Your task to perform on an android device: Is it going to rain tomorrow? Image 0: 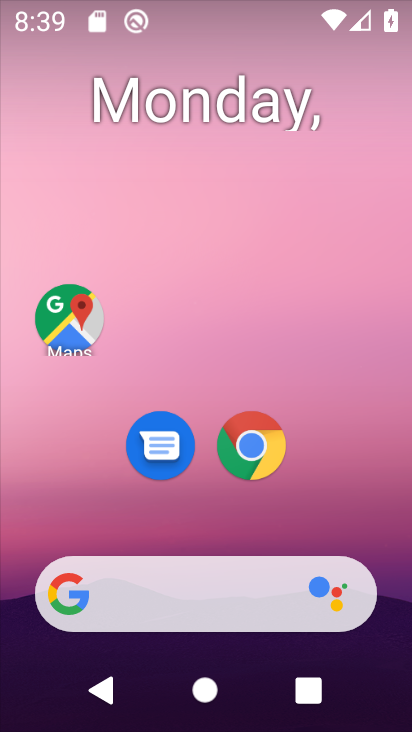
Step 0: drag from (358, 511) to (355, 116)
Your task to perform on an android device: Is it going to rain tomorrow? Image 1: 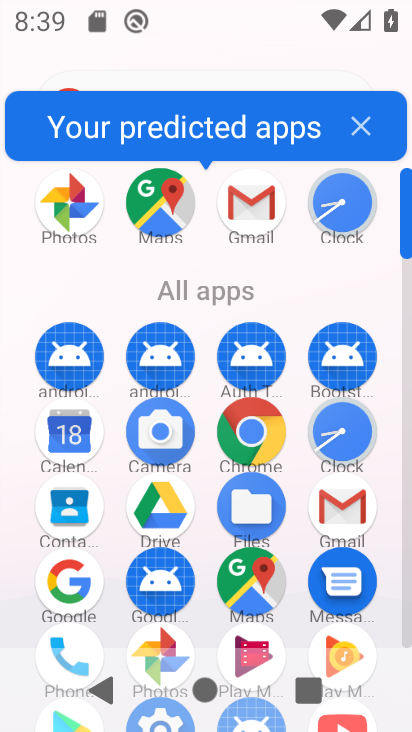
Step 1: click (268, 446)
Your task to perform on an android device: Is it going to rain tomorrow? Image 2: 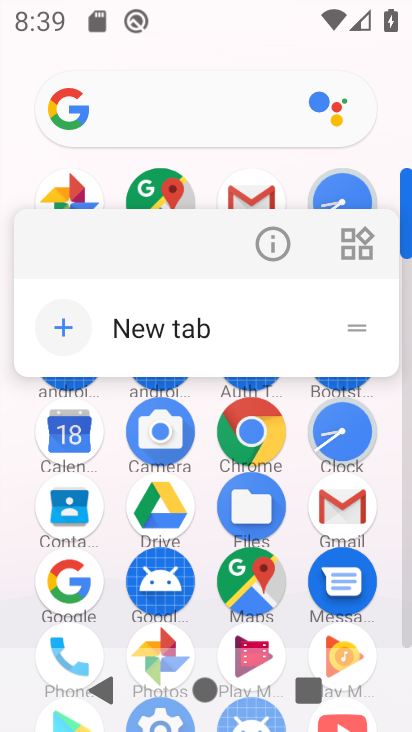
Step 2: click (268, 443)
Your task to perform on an android device: Is it going to rain tomorrow? Image 3: 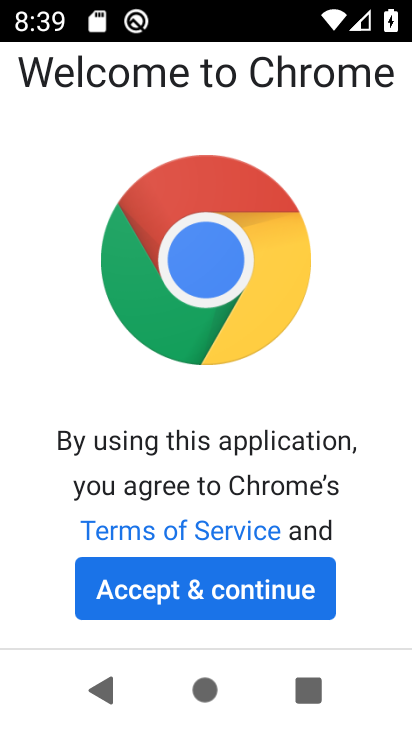
Step 3: click (263, 596)
Your task to perform on an android device: Is it going to rain tomorrow? Image 4: 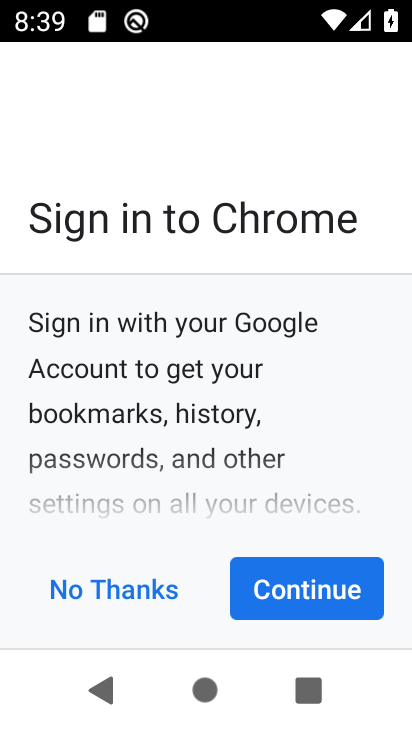
Step 4: click (264, 594)
Your task to perform on an android device: Is it going to rain tomorrow? Image 5: 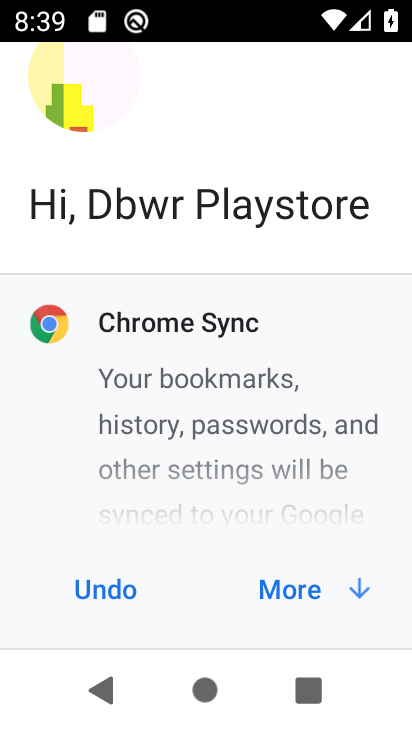
Step 5: click (272, 591)
Your task to perform on an android device: Is it going to rain tomorrow? Image 6: 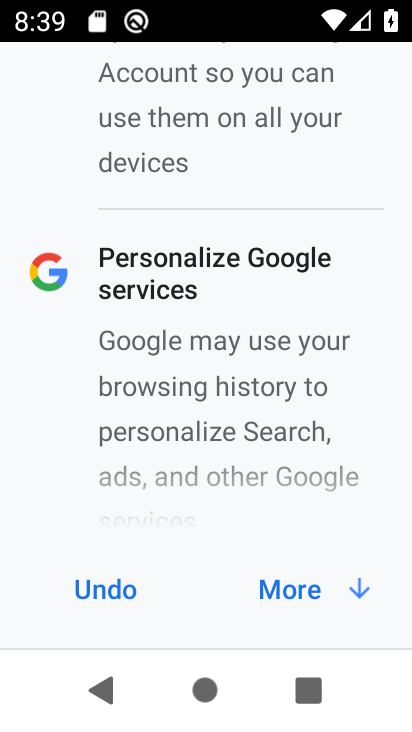
Step 6: click (289, 587)
Your task to perform on an android device: Is it going to rain tomorrow? Image 7: 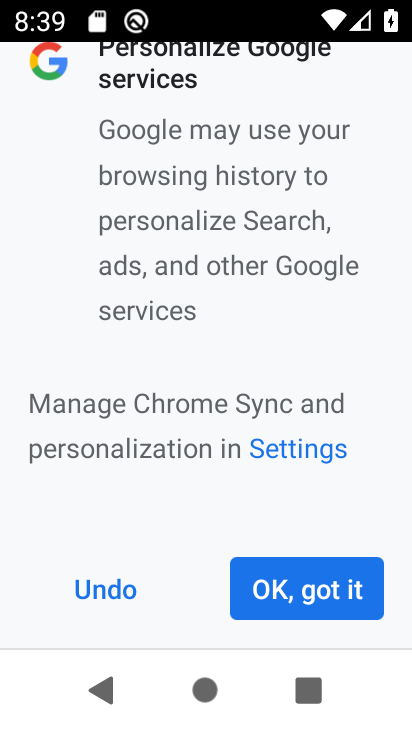
Step 7: click (289, 585)
Your task to perform on an android device: Is it going to rain tomorrow? Image 8: 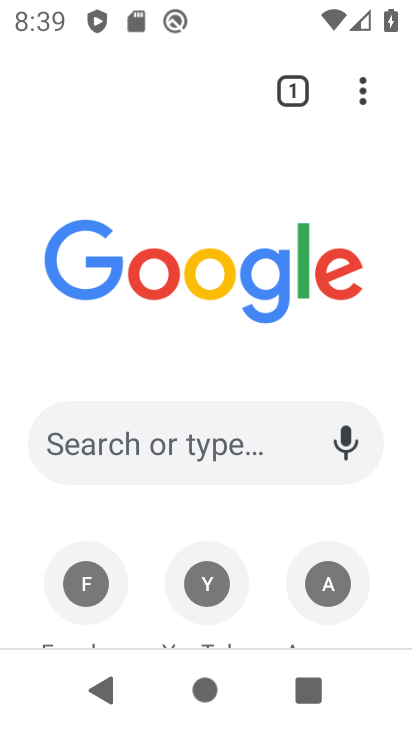
Step 8: click (225, 437)
Your task to perform on an android device: Is it going to rain tomorrow? Image 9: 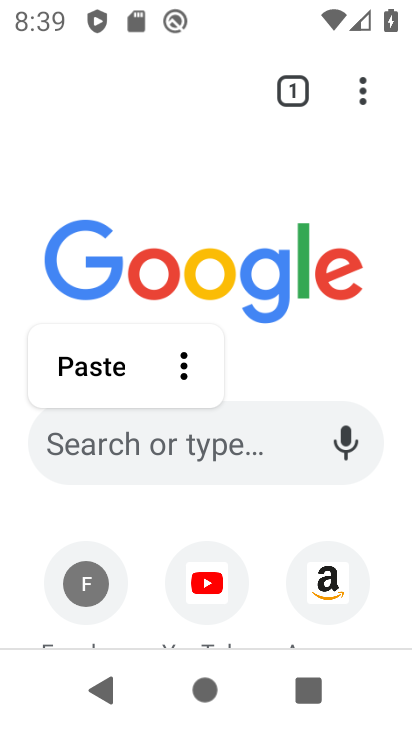
Step 9: type "WHEATHER"
Your task to perform on an android device: Is it going to rain tomorrow? Image 10: 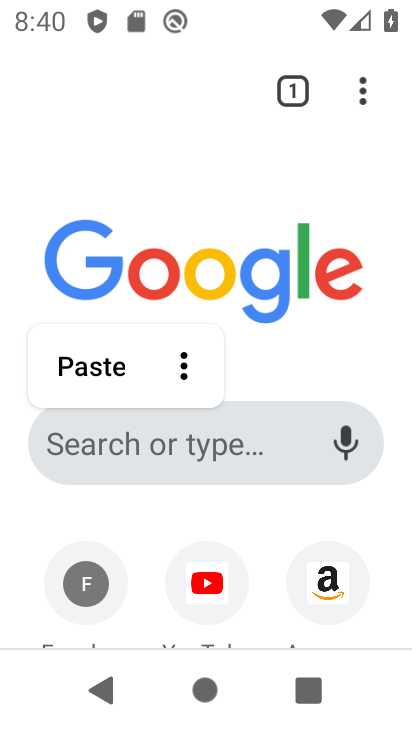
Step 10: click (272, 456)
Your task to perform on an android device: Is it going to rain tomorrow? Image 11: 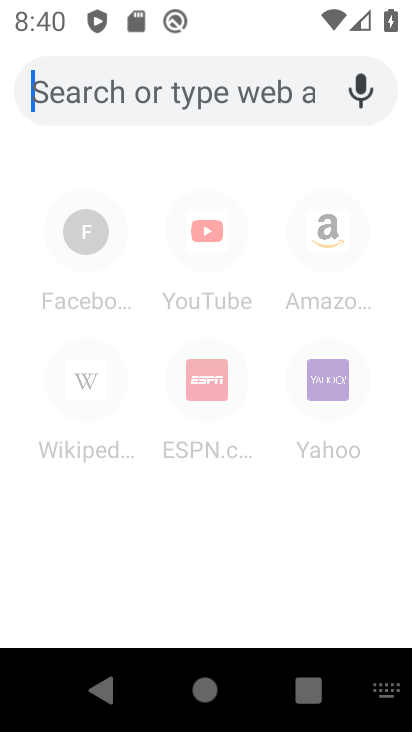
Step 11: type "wheather"
Your task to perform on an android device: Is it going to rain tomorrow? Image 12: 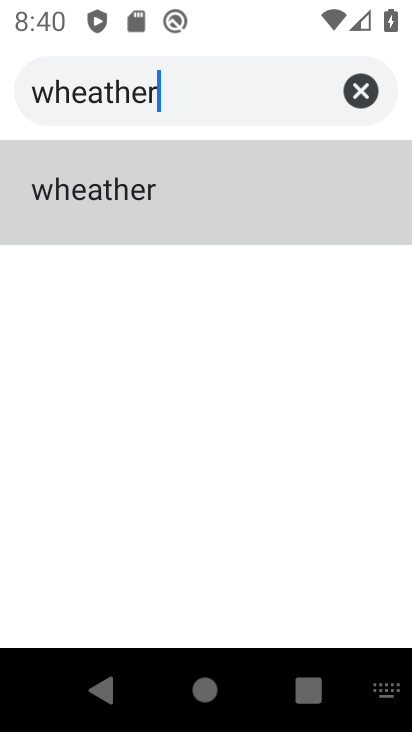
Step 12: type ""
Your task to perform on an android device: Is it going to rain tomorrow? Image 13: 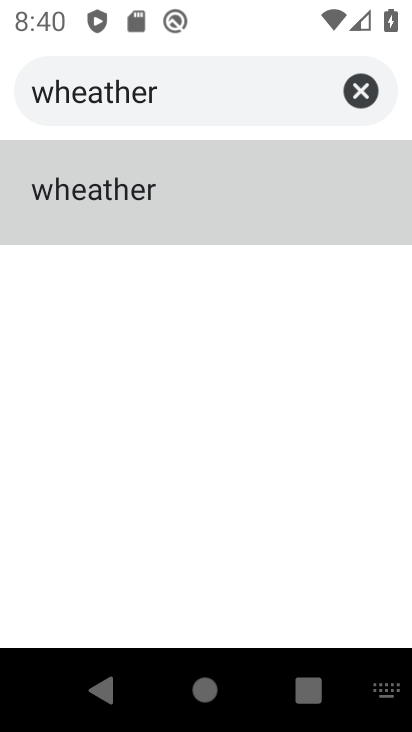
Step 13: click (222, 196)
Your task to perform on an android device: Is it going to rain tomorrow? Image 14: 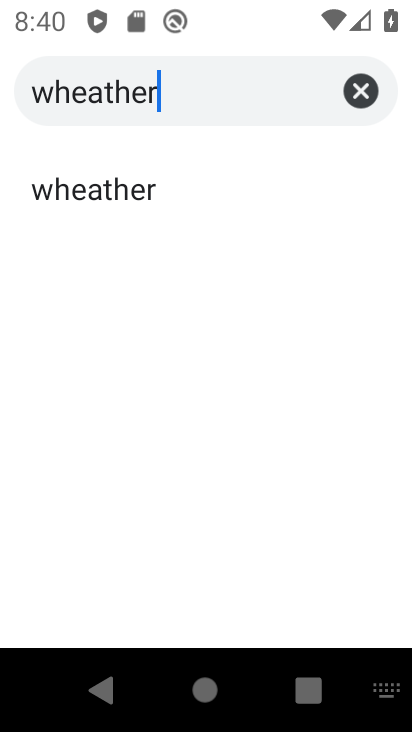
Step 14: click (146, 192)
Your task to perform on an android device: Is it going to rain tomorrow? Image 15: 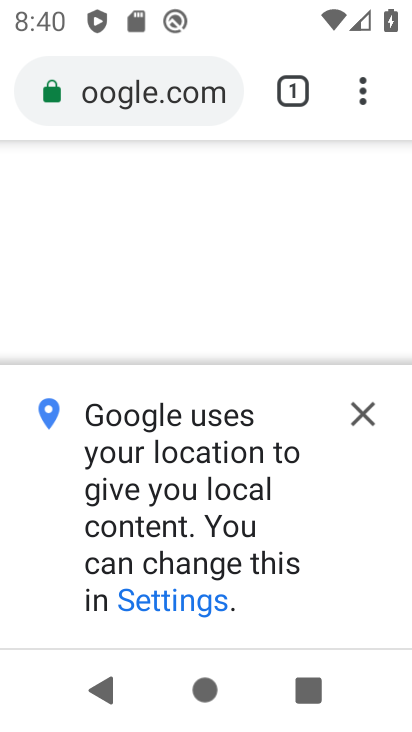
Step 15: click (370, 417)
Your task to perform on an android device: Is it going to rain tomorrow? Image 16: 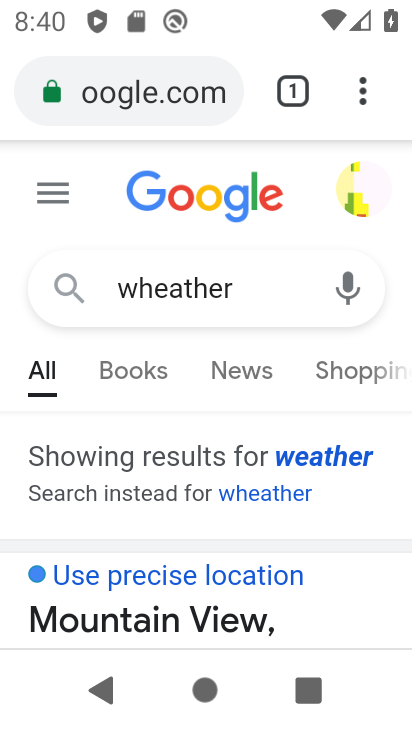
Step 16: task complete